Your task to perform on an android device: Search for "amazon basics triple a" on amazon.com, select the first entry, and add it to the cart. Image 0: 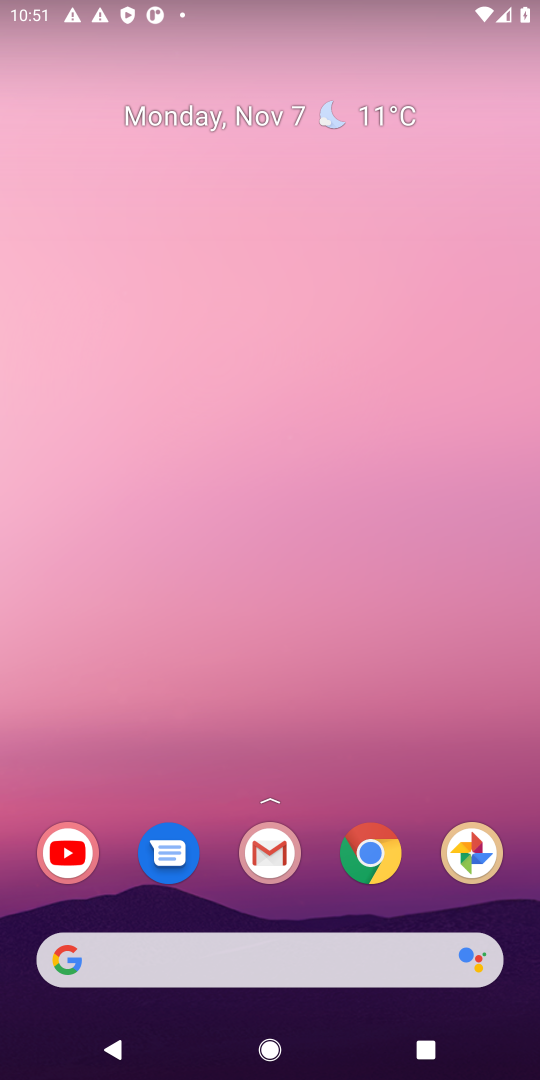
Step 0: click (305, 984)
Your task to perform on an android device: Search for "amazon basics triple a" on amazon.com, select the first entry, and add it to the cart. Image 1: 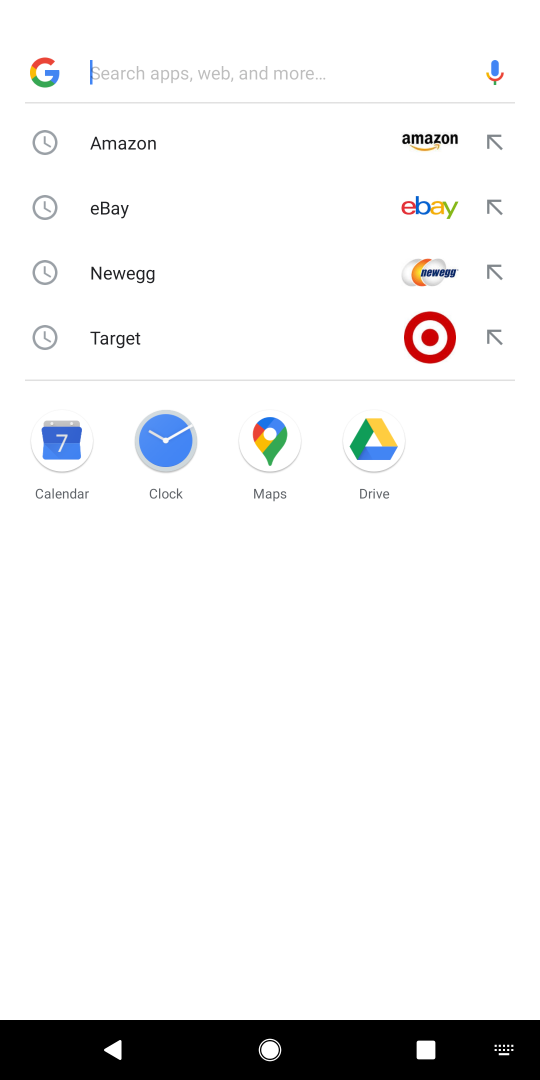
Step 1: click (246, 145)
Your task to perform on an android device: Search for "amazon basics triple a" on amazon.com, select the first entry, and add it to the cart. Image 2: 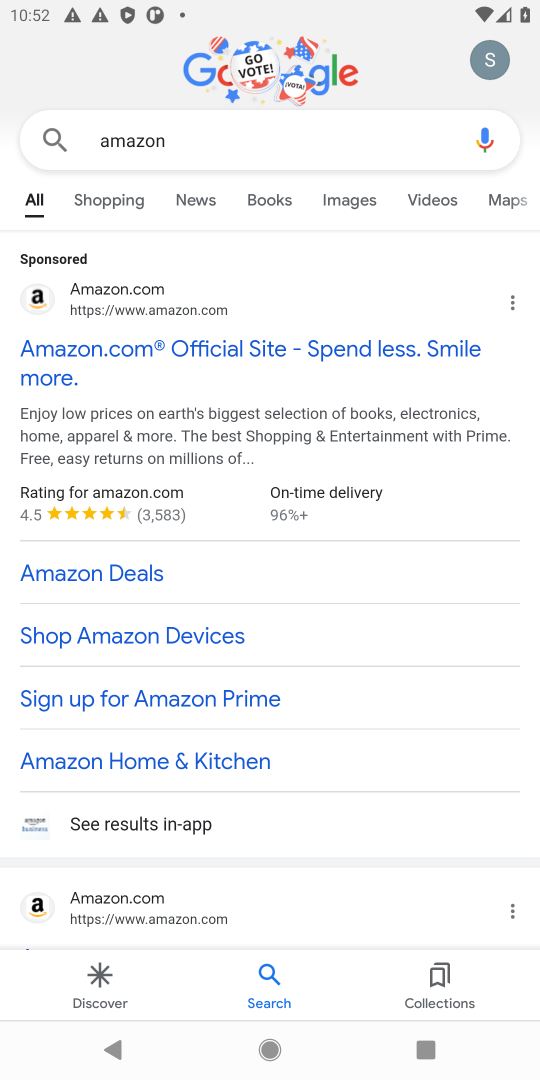
Step 2: click (124, 340)
Your task to perform on an android device: Search for "amazon basics triple a" on amazon.com, select the first entry, and add it to the cart. Image 3: 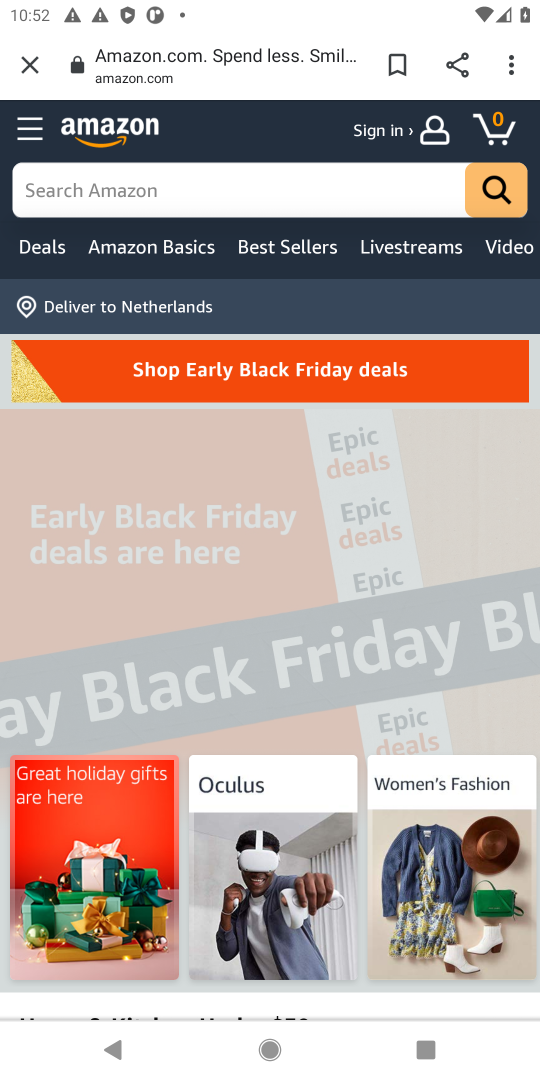
Step 3: click (214, 179)
Your task to perform on an android device: Search for "amazon basics triple a" on amazon.com, select the first entry, and add it to the cart. Image 4: 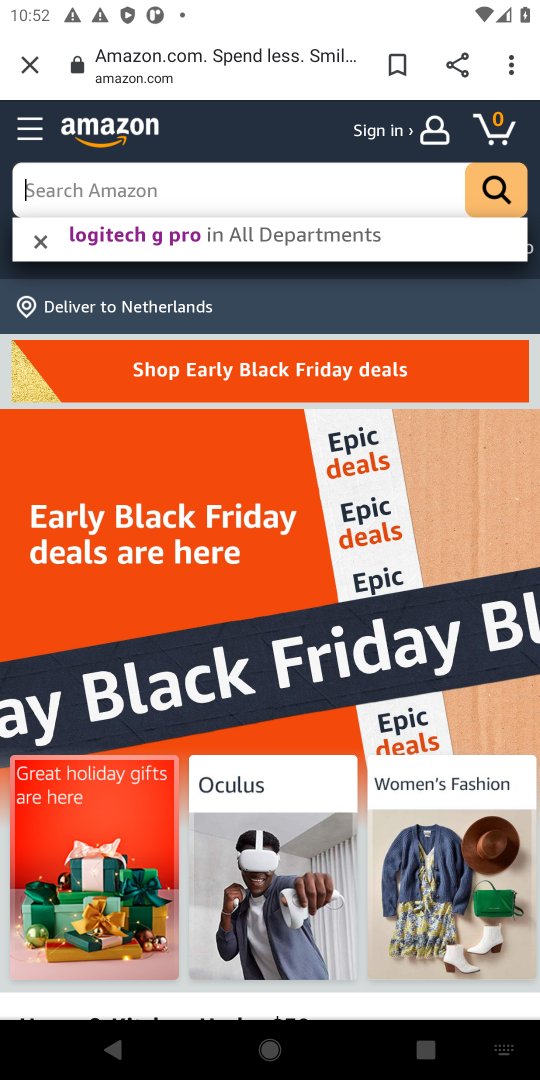
Step 4: type "amazon triple"
Your task to perform on an android device: Search for "amazon basics triple a" on amazon.com, select the first entry, and add it to the cart. Image 5: 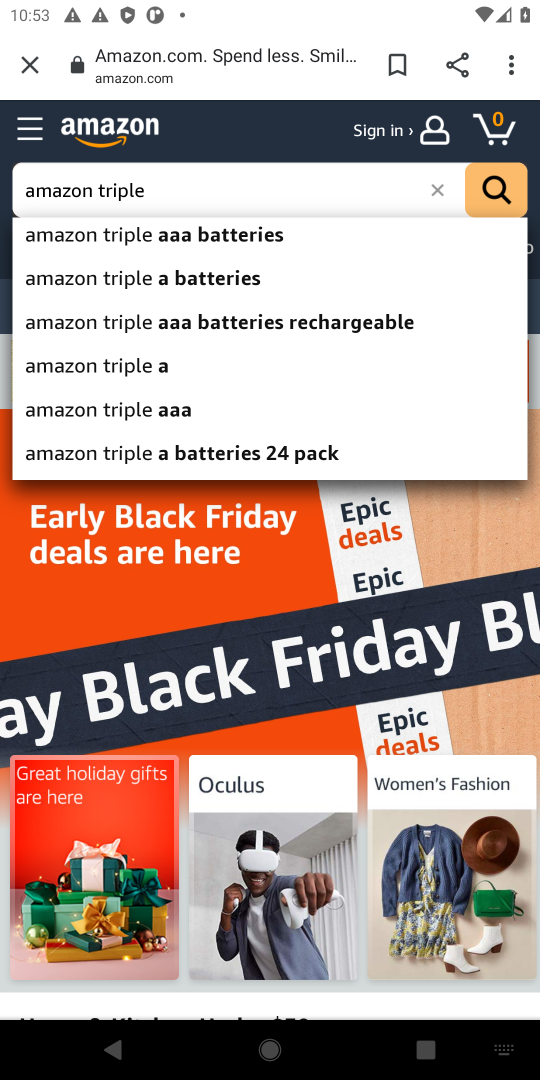
Step 5: click (194, 228)
Your task to perform on an android device: Search for "amazon basics triple a" on amazon.com, select the first entry, and add it to the cart. Image 6: 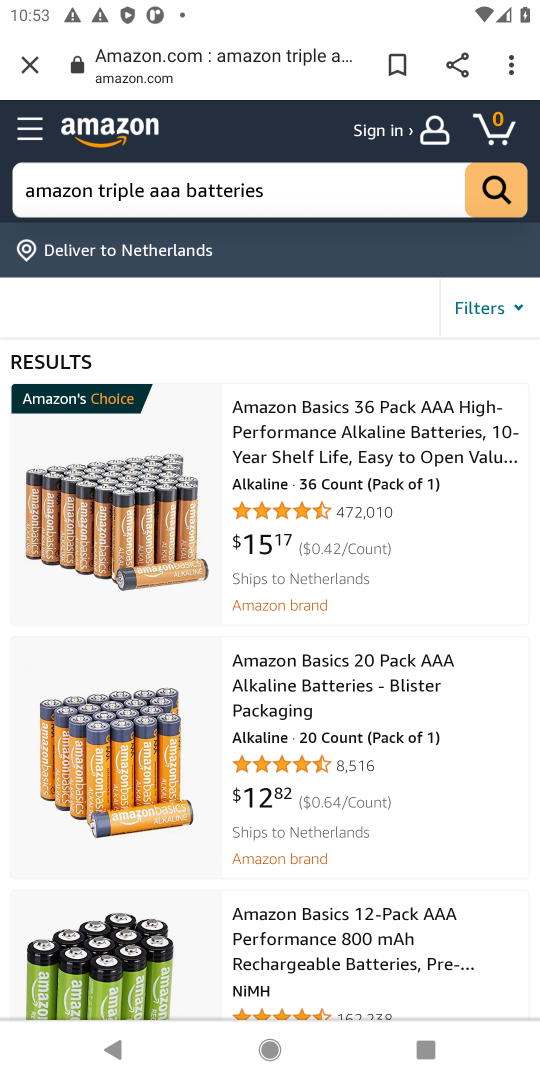
Step 6: click (243, 476)
Your task to perform on an android device: Search for "amazon basics triple a" on amazon.com, select the first entry, and add it to the cart. Image 7: 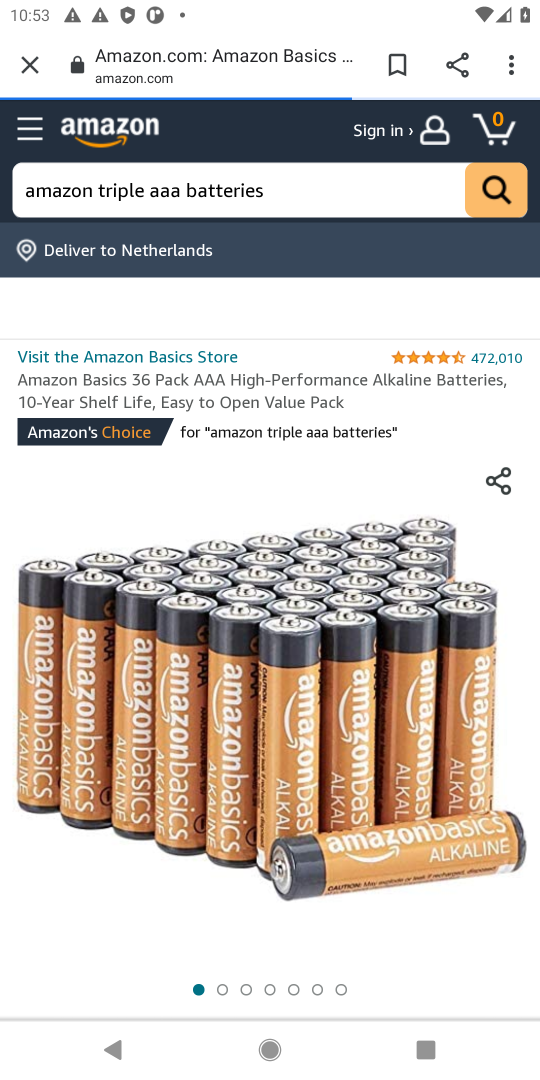
Step 7: task complete